Your task to perform on an android device: open sync settings in chrome Image 0: 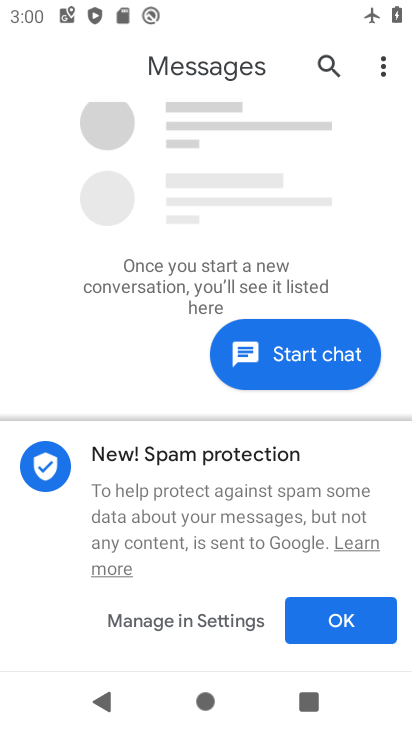
Step 0: press home button
Your task to perform on an android device: open sync settings in chrome Image 1: 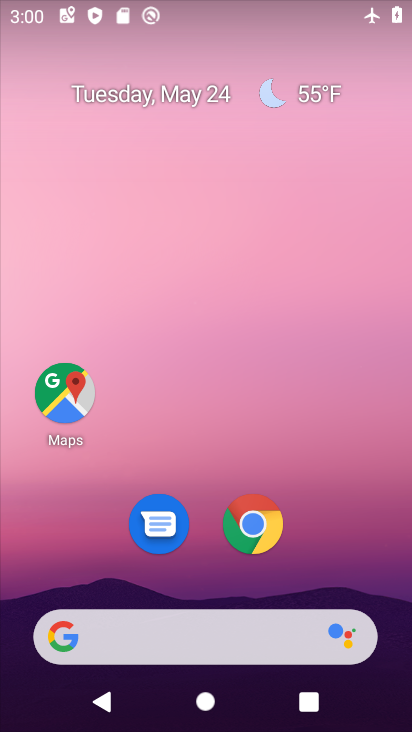
Step 1: click (266, 530)
Your task to perform on an android device: open sync settings in chrome Image 2: 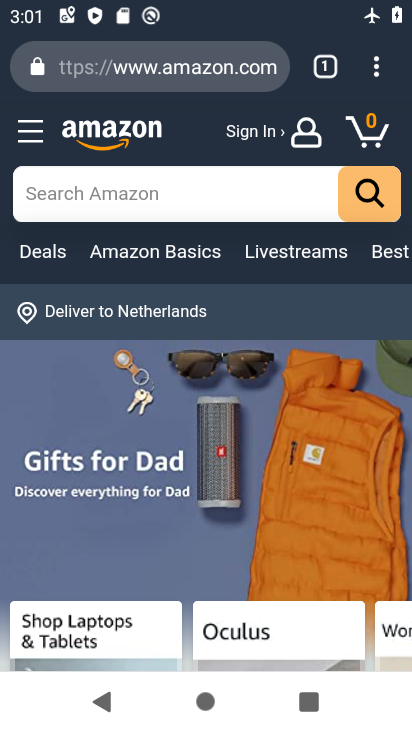
Step 2: click (375, 76)
Your task to perform on an android device: open sync settings in chrome Image 3: 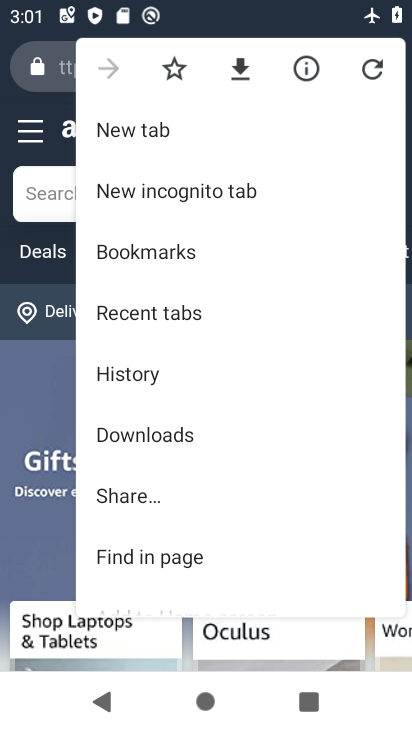
Step 3: drag from (263, 540) to (250, 158)
Your task to perform on an android device: open sync settings in chrome Image 4: 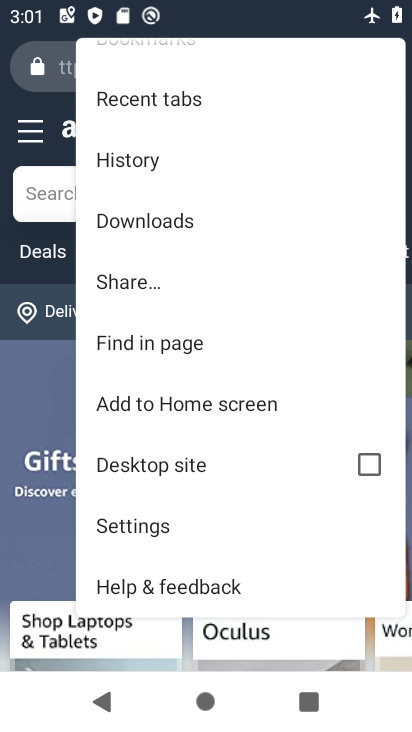
Step 4: click (169, 522)
Your task to perform on an android device: open sync settings in chrome Image 5: 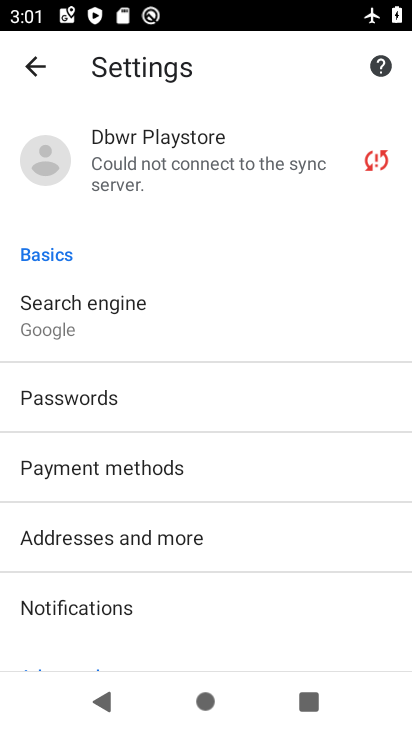
Step 5: click (198, 138)
Your task to perform on an android device: open sync settings in chrome Image 6: 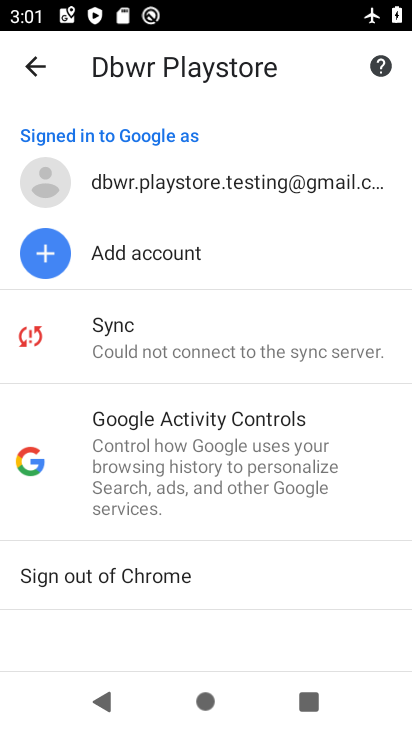
Step 6: click (183, 329)
Your task to perform on an android device: open sync settings in chrome Image 7: 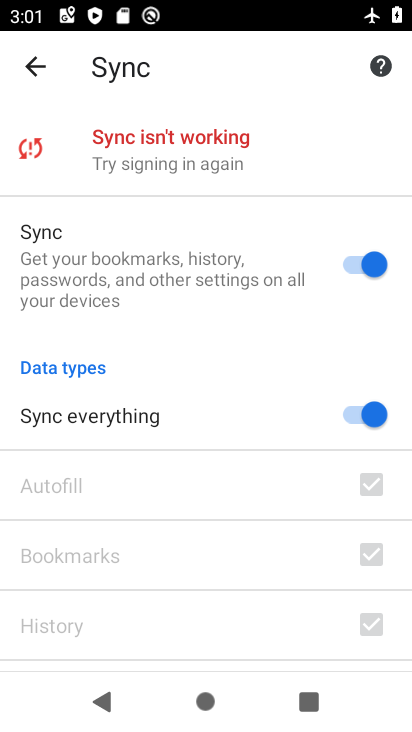
Step 7: task complete